Your task to perform on an android device: Toggle the flashlight Image 0: 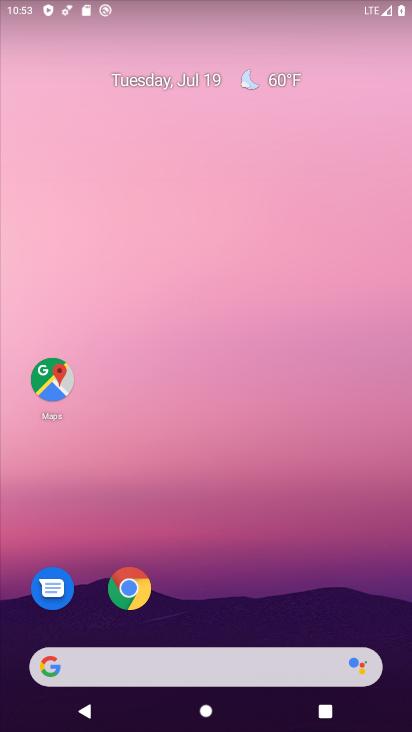
Step 0: drag from (288, 583) to (185, 37)
Your task to perform on an android device: Toggle the flashlight Image 1: 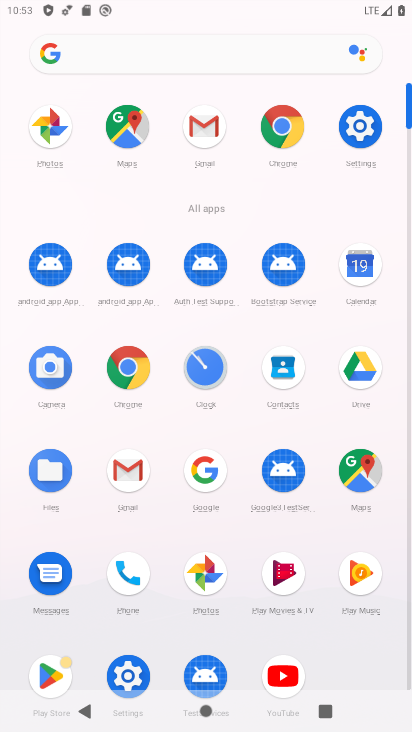
Step 1: click (369, 136)
Your task to perform on an android device: Toggle the flashlight Image 2: 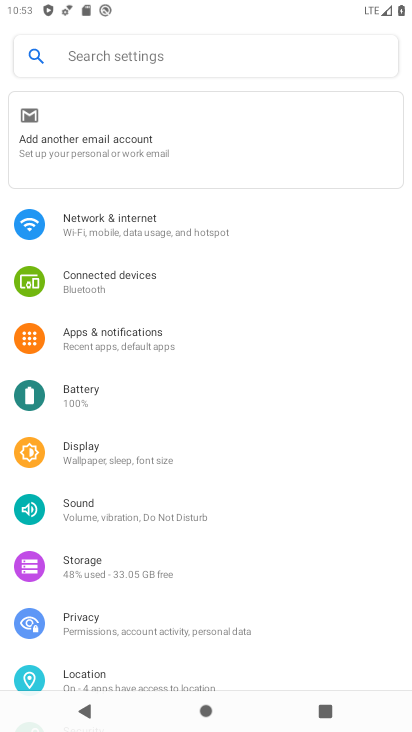
Step 2: task complete